Your task to perform on an android device: install app "Move to iOS" Image 0: 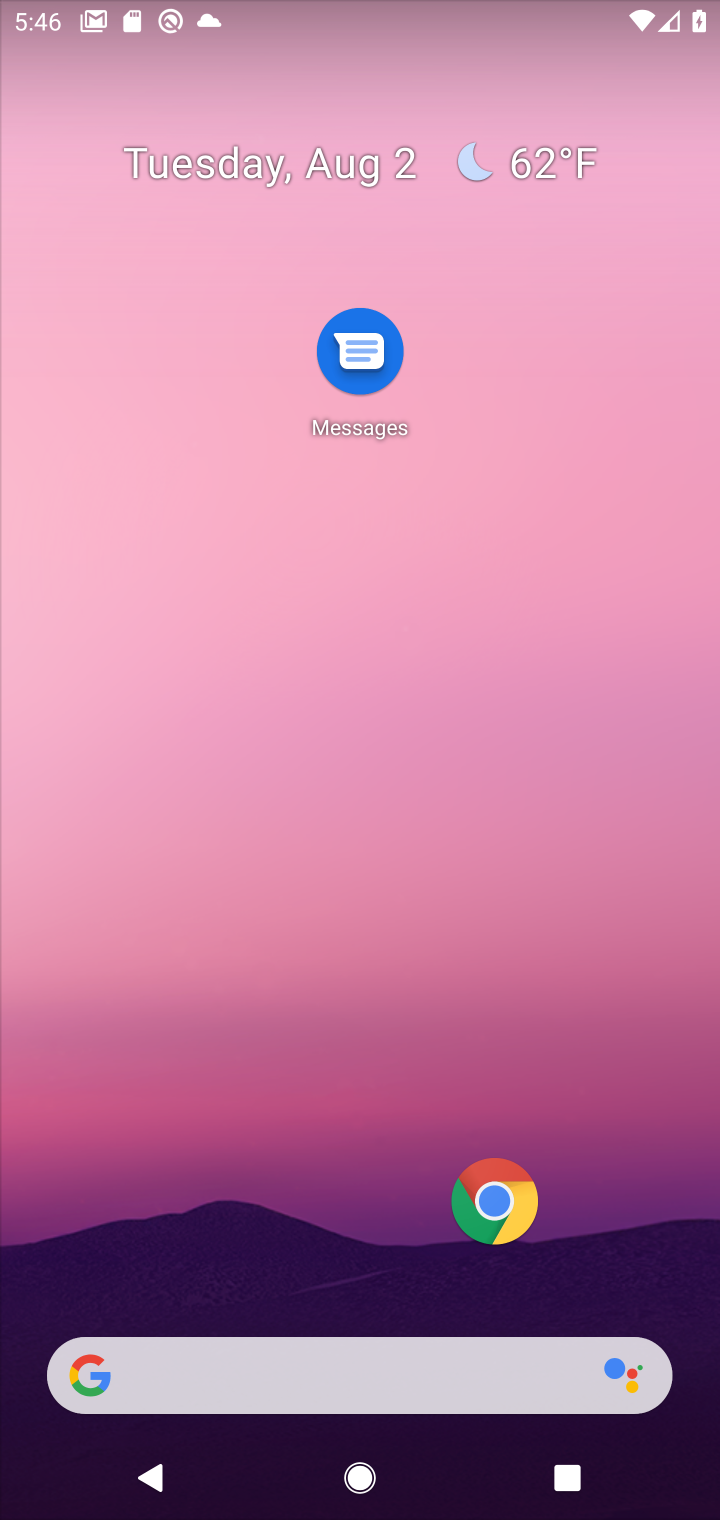
Step 0: drag from (369, 1245) to (394, 240)
Your task to perform on an android device: install app "Move to iOS" Image 1: 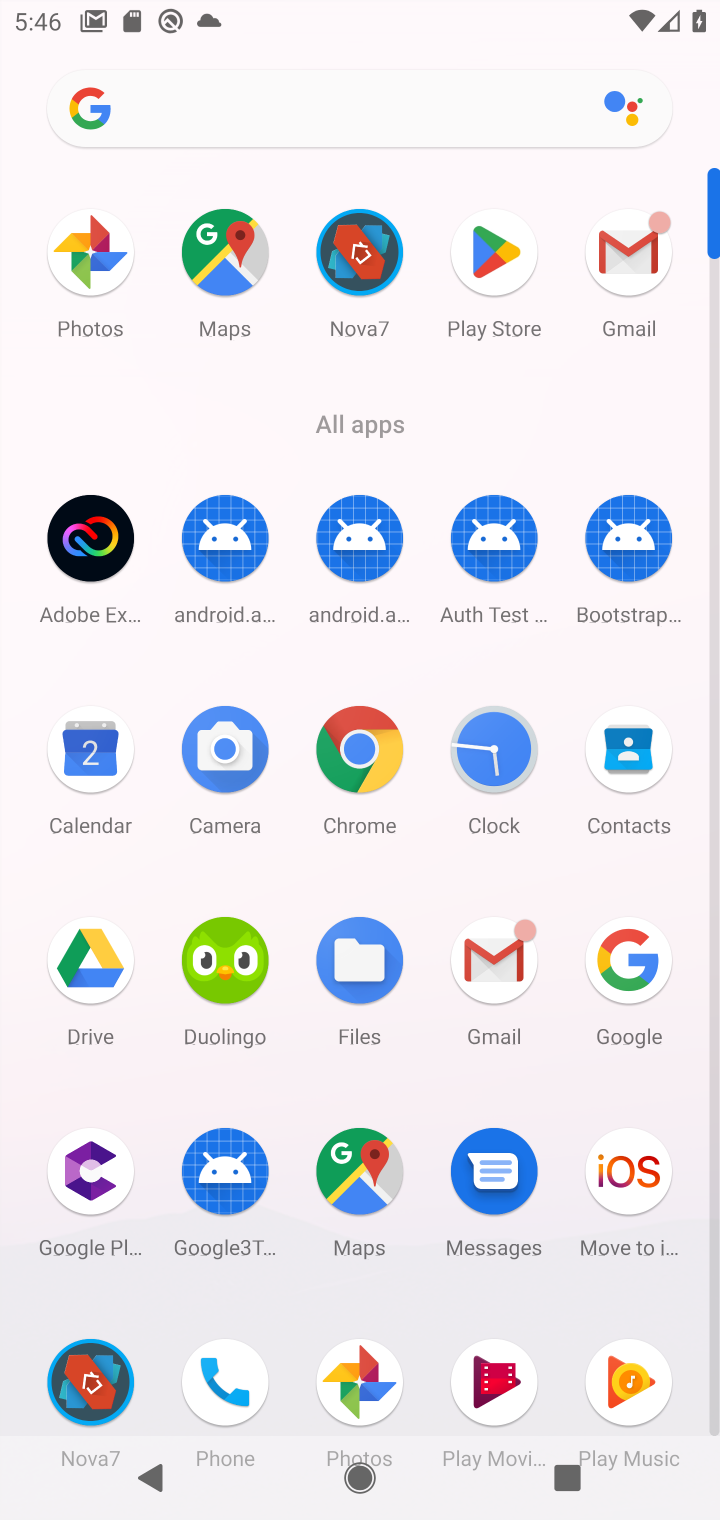
Step 1: click (512, 252)
Your task to perform on an android device: install app "Move to iOS" Image 2: 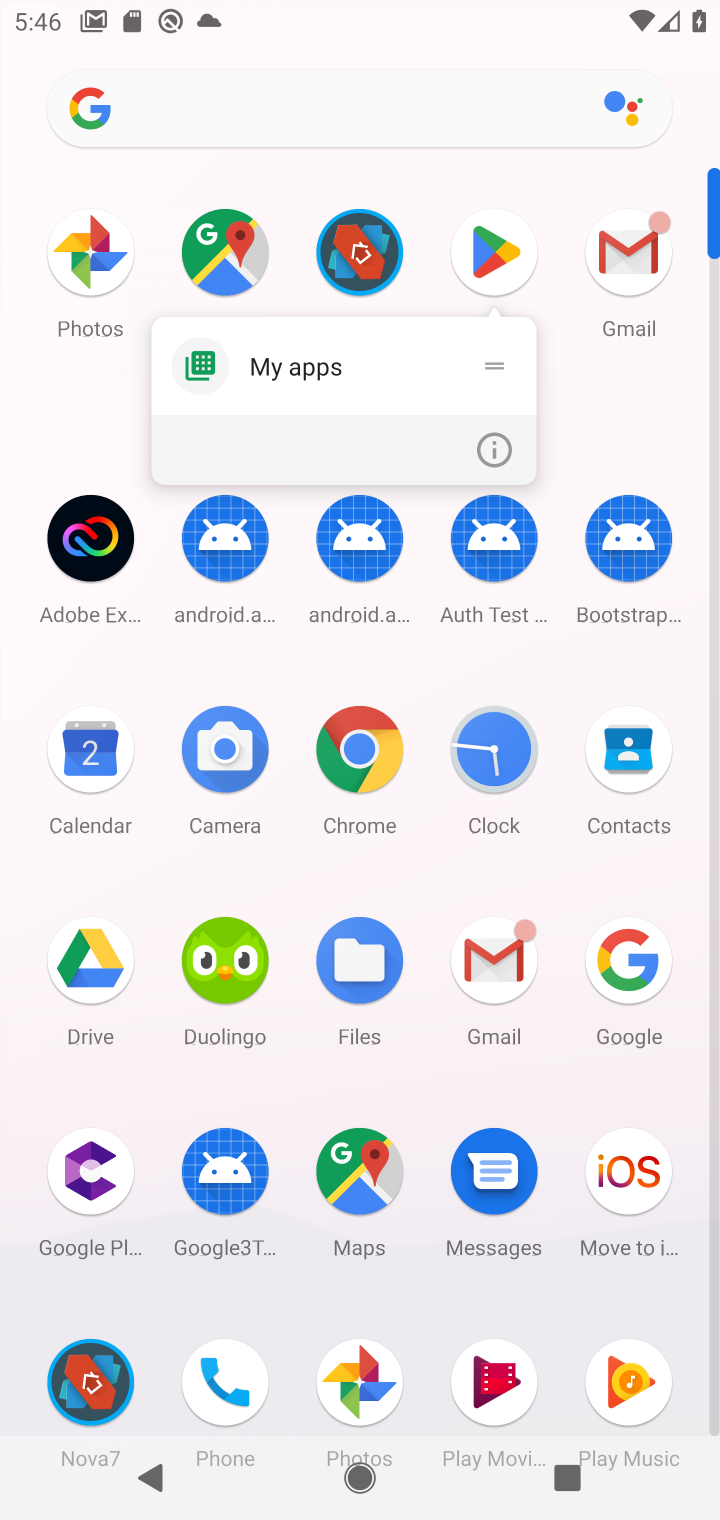
Step 2: click (509, 433)
Your task to perform on an android device: install app "Move to iOS" Image 3: 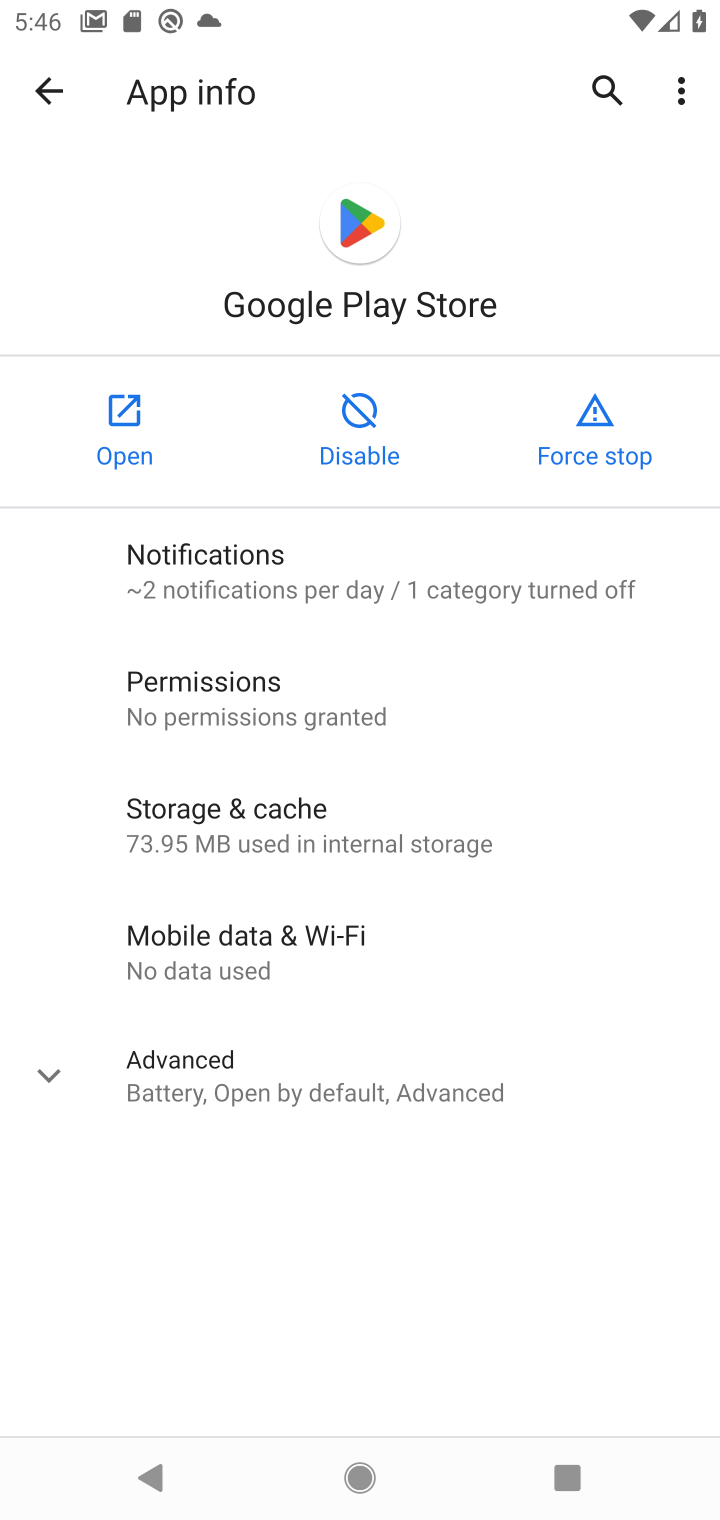
Step 3: click (116, 415)
Your task to perform on an android device: install app "Move to iOS" Image 4: 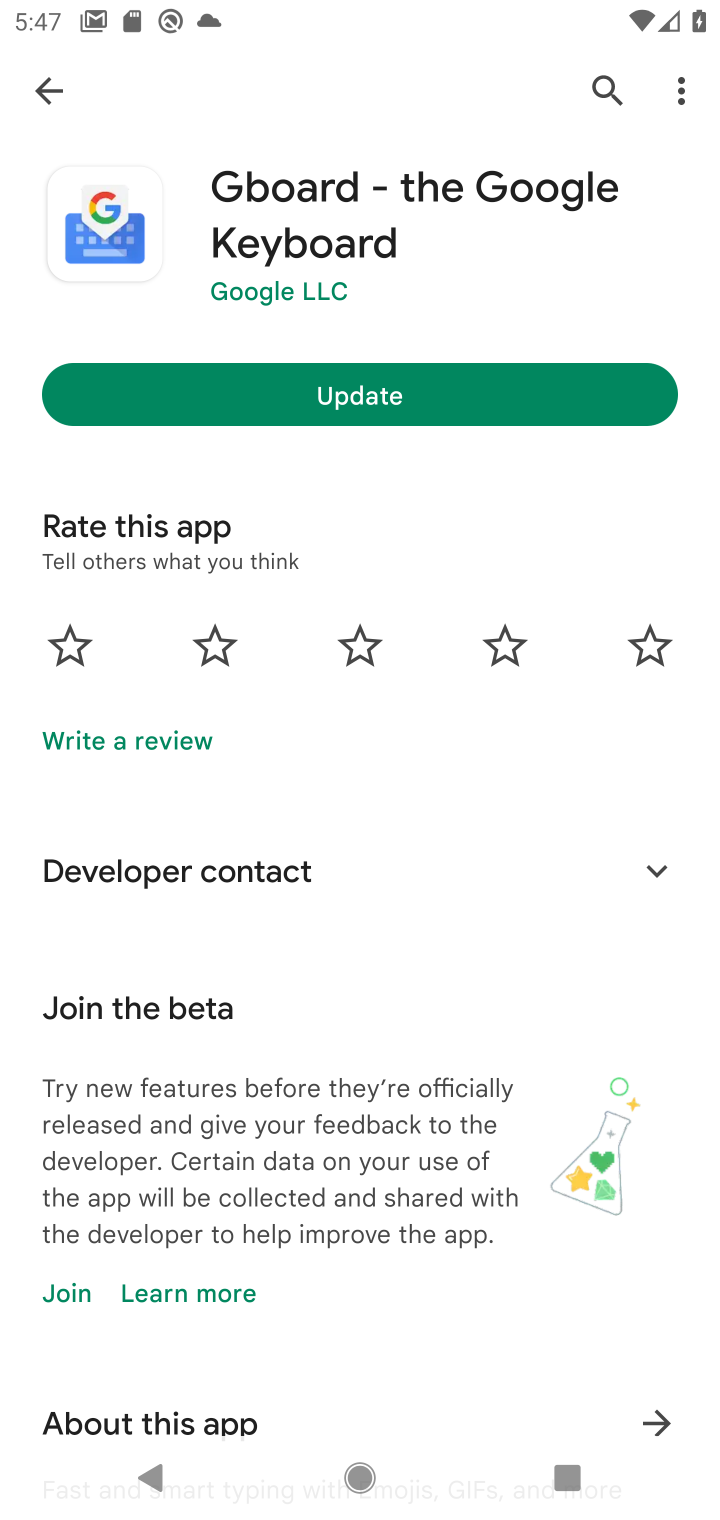
Step 4: drag from (288, 744) to (435, 1280)
Your task to perform on an android device: install app "Move to iOS" Image 5: 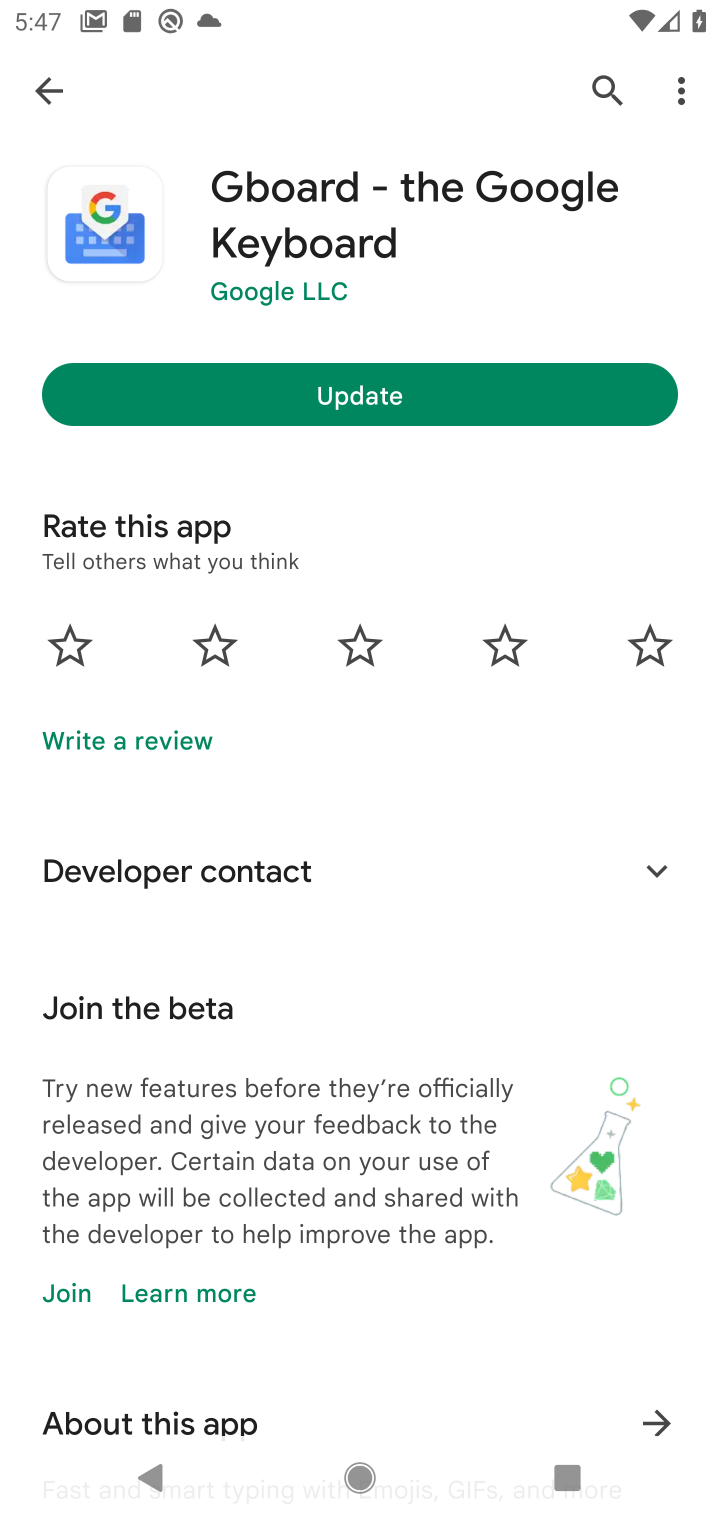
Step 5: click (618, 70)
Your task to perform on an android device: install app "Move to iOS" Image 6: 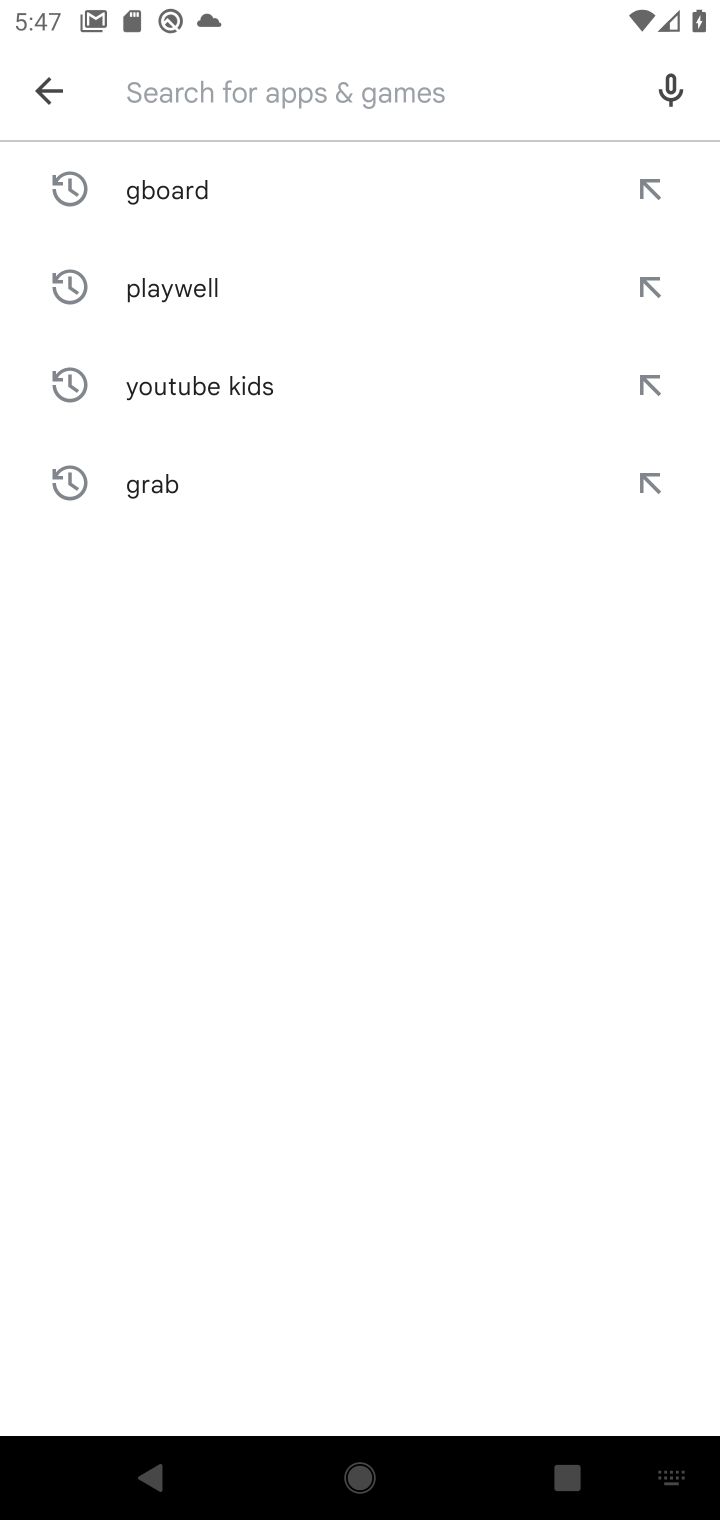
Step 6: type "Gboard"
Your task to perform on an android device: install app "Move to iOS" Image 7: 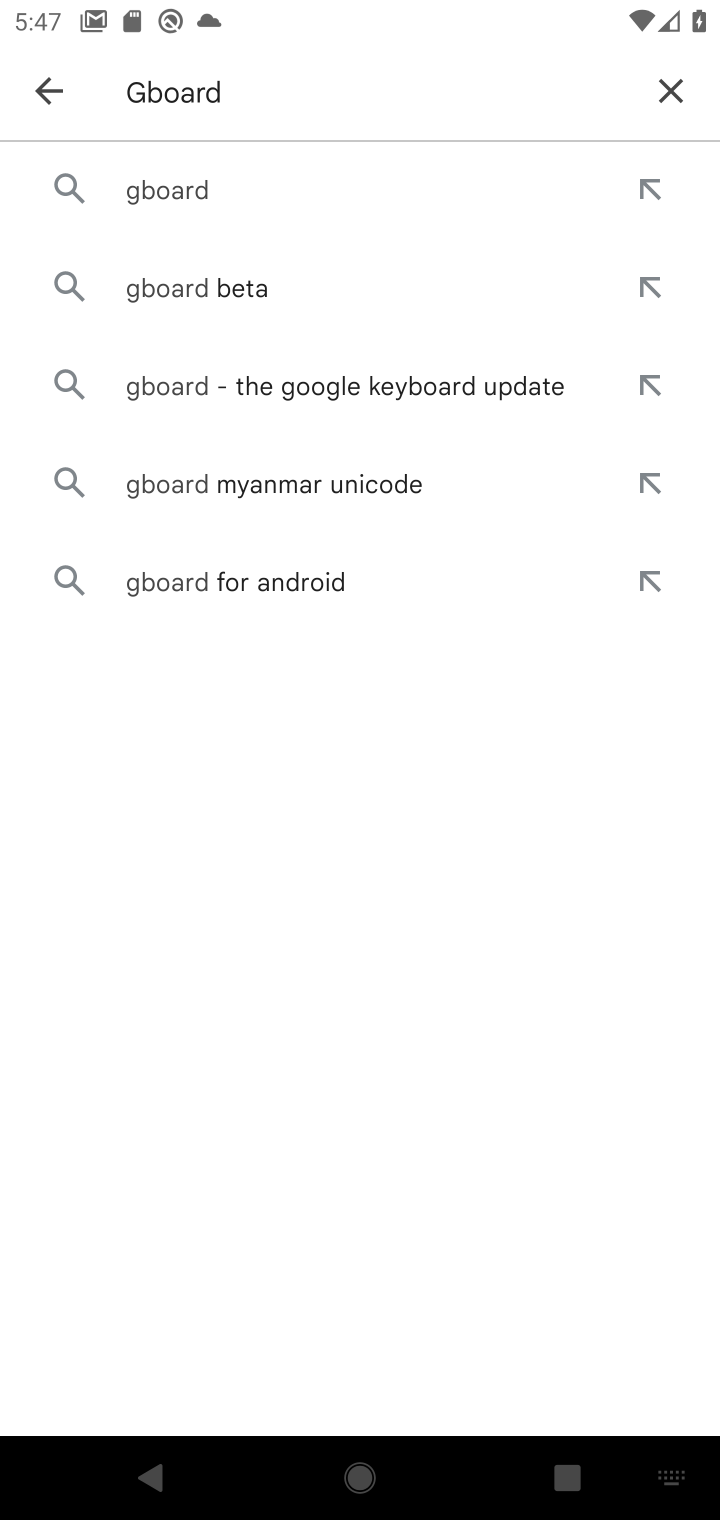
Step 7: click (664, 82)
Your task to perform on an android device: install app "Move to iOS" Image 8: 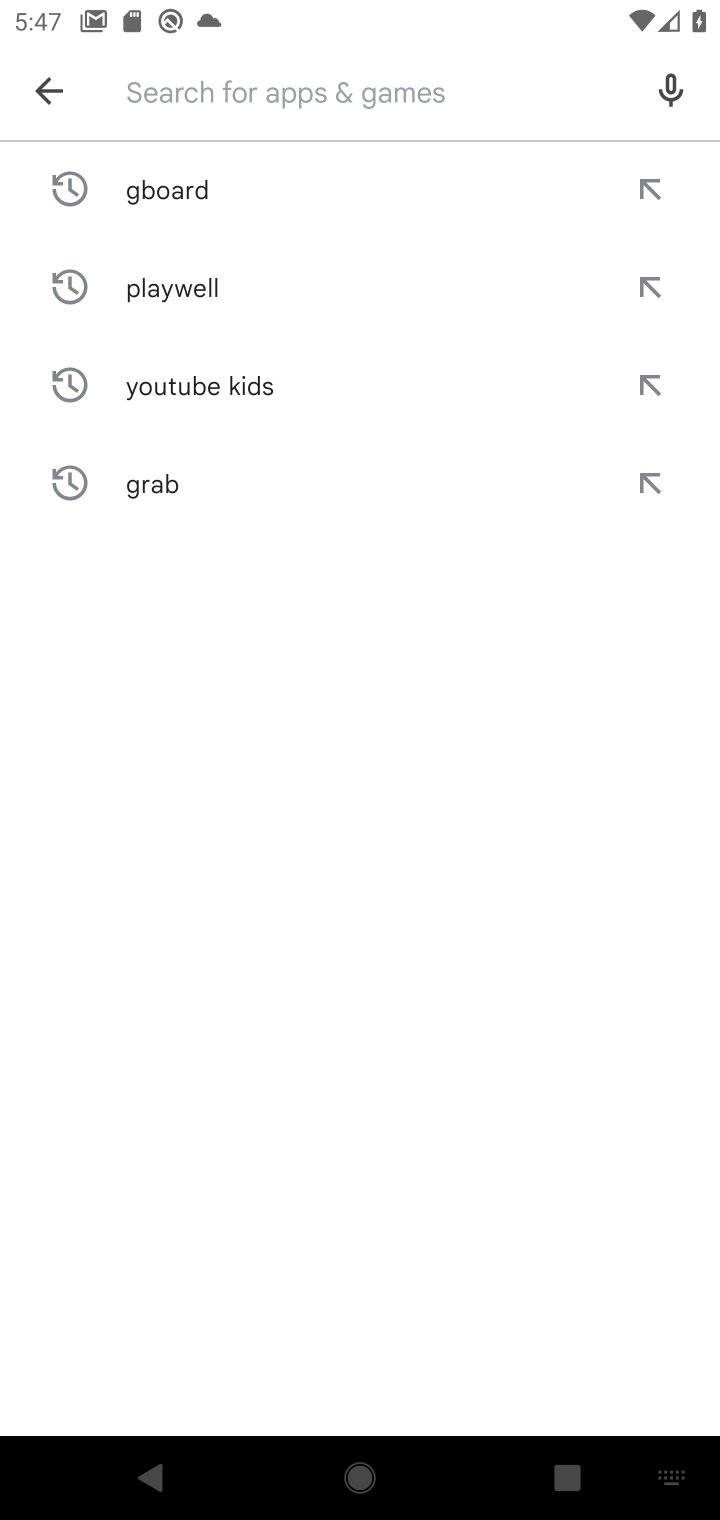
Step 8: type "Move to iOS"
Your task to perform on an android device: install app "Move to iOS" Image 9: 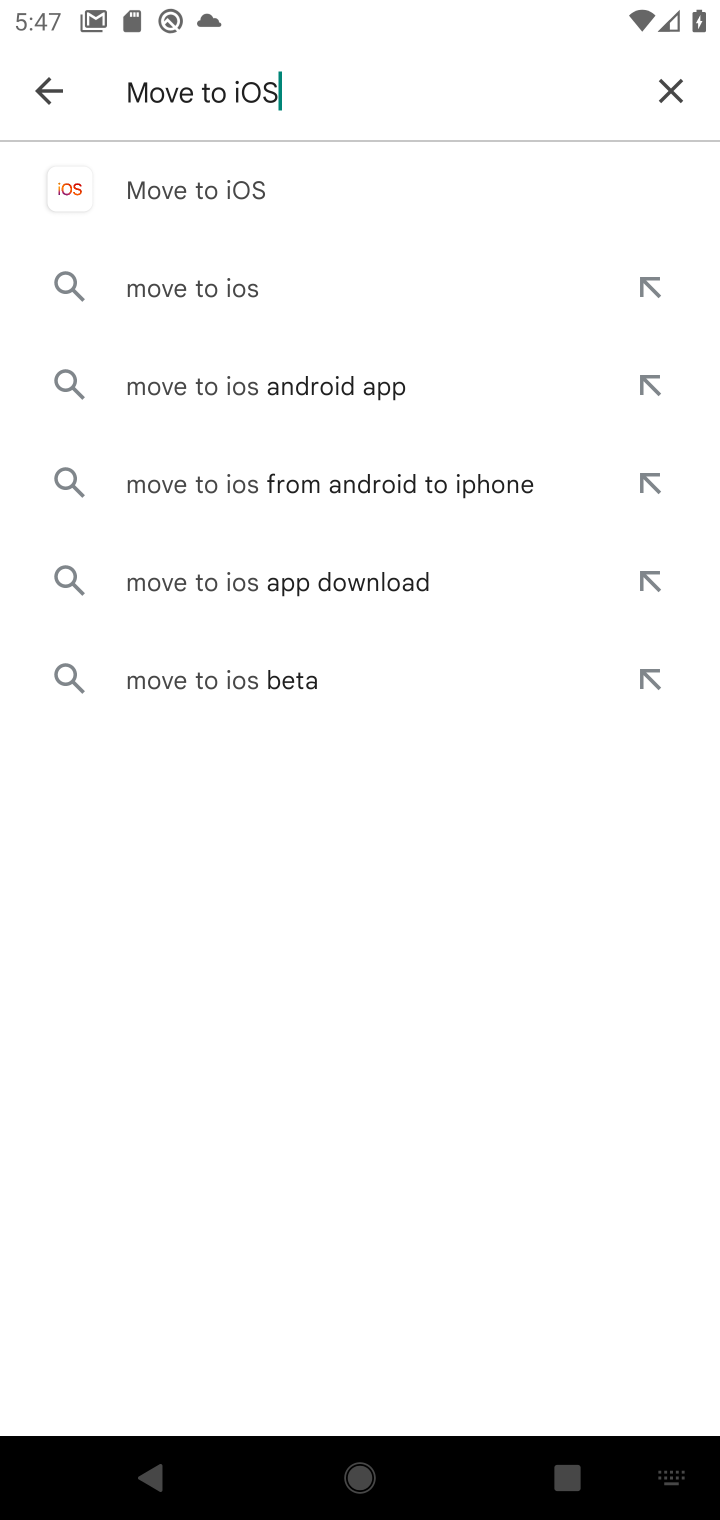
Step 9: click (206, 171)
Your task to perform on an android device: install app "Move to iOS" Image 10: 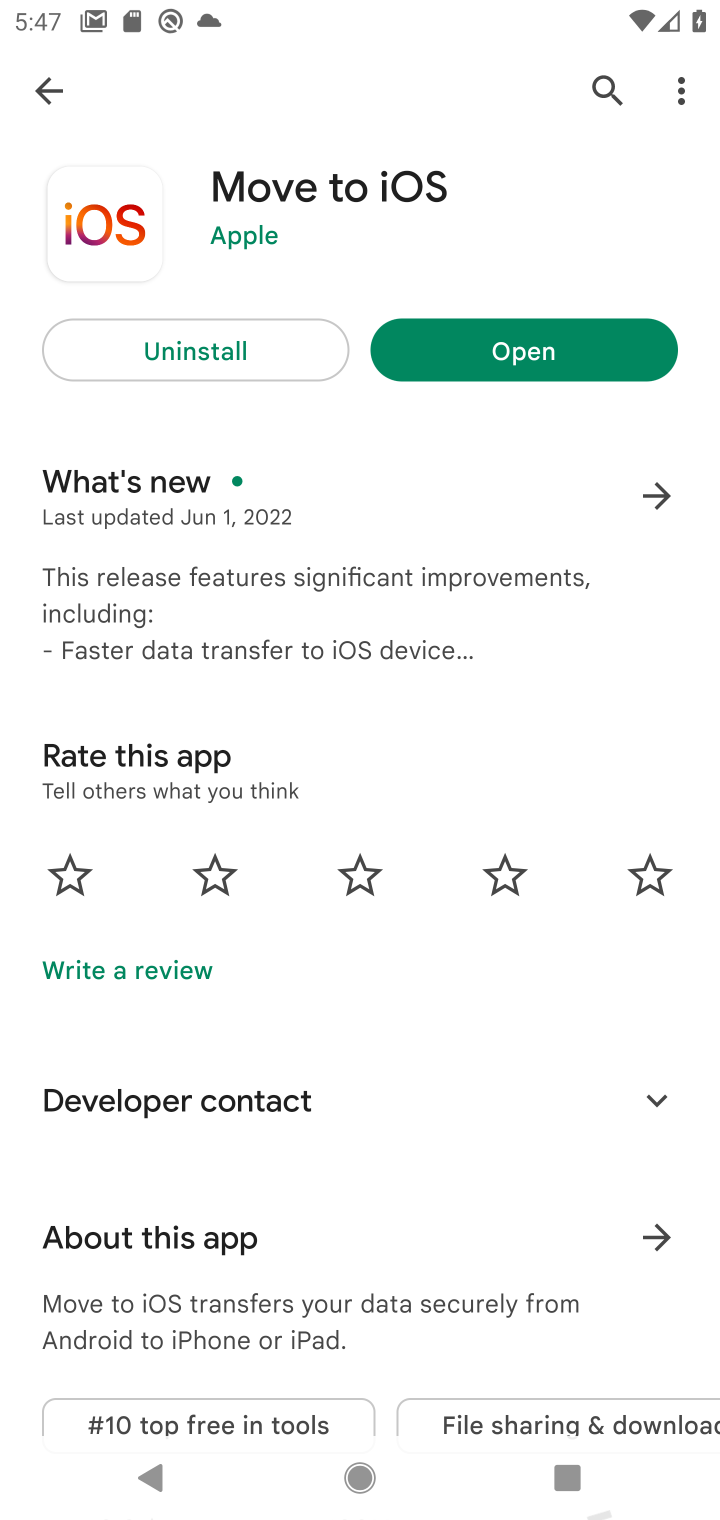
Step 10: task complete